Your task to perform on an android device: Go to battery settings Image 0: 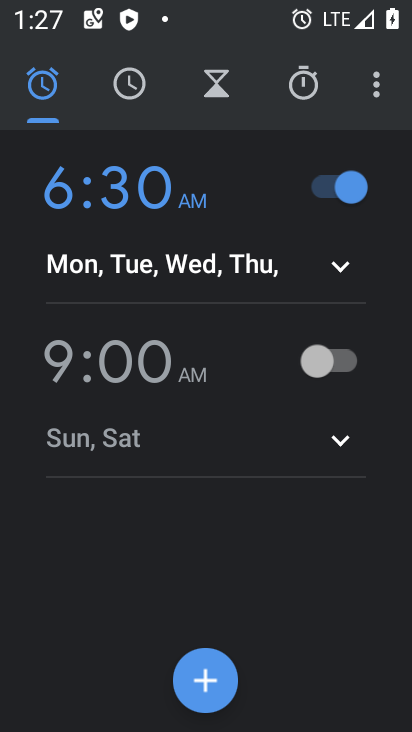
Step 0: press home button
Your task to perform on an android device: Go to battery settings Image 1: 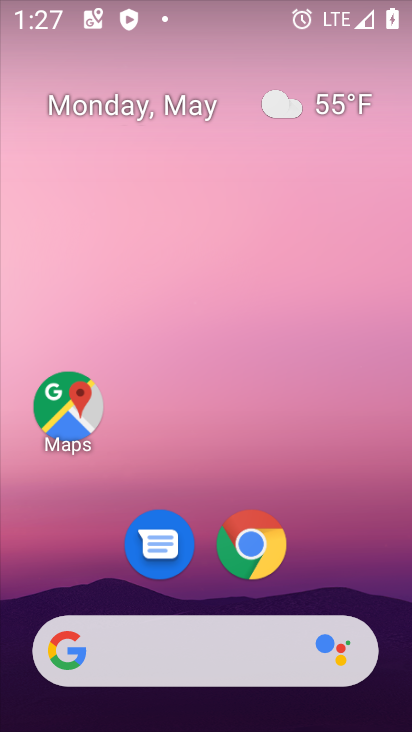
Step 1: drag from (392, 627) to (362, 70)
Your task to perform on an android device: Go to battery settings Image 2: 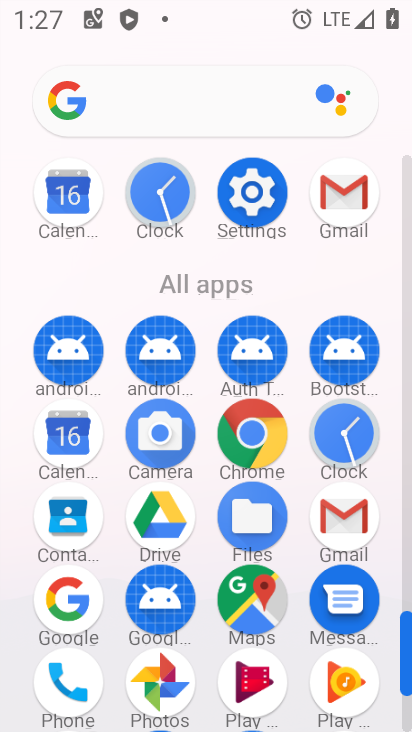
Step 2: click (405, 597)
Your task to perform on an android device: Go to battery settings Image 3: 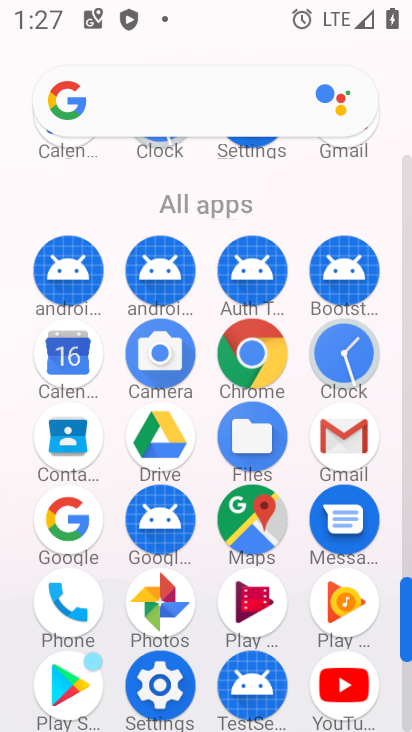
Step 3: click (161, 687)
Your task to perform on an android device: Go to battery settings Image 4: 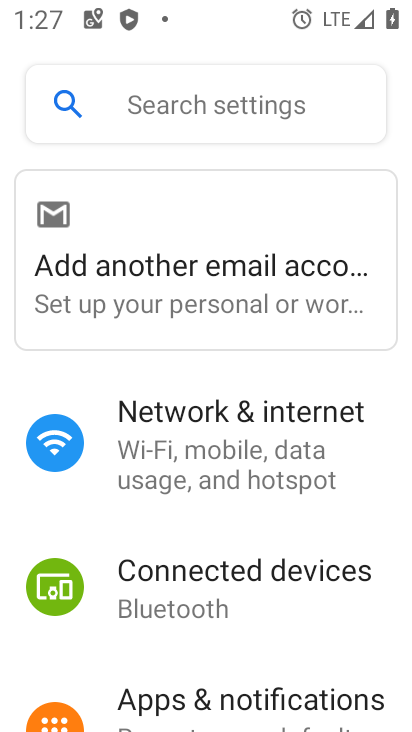
Step 4: drag from (351, 630) to (349, 168)
Your task to perform on an android device: Go to battery settings Image 5: 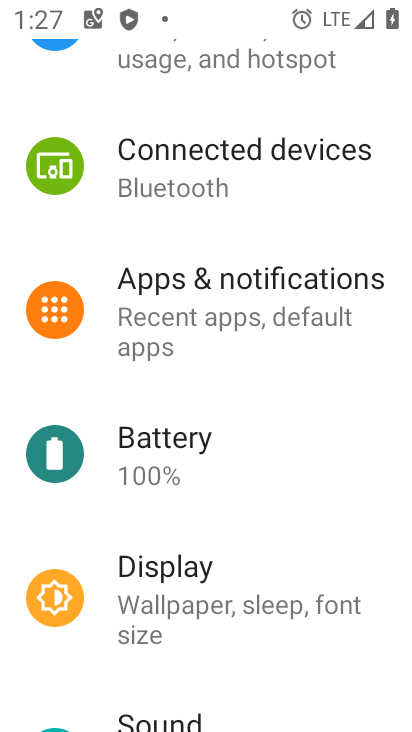
Step 5: click (138, 448)
Your task to perform on an android device: Go to battery settings Image 6: 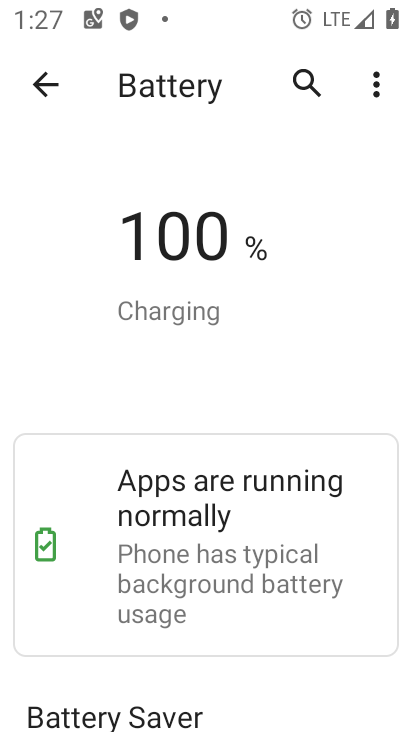
Step 6: task complete